Your task to perform on an android device: Open Google Maps Image 0: 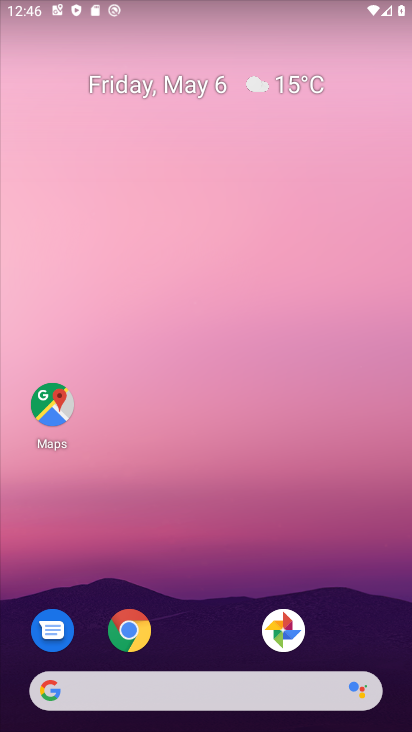
Step 0: drag from (193, 637) to (158, 33)
Your task to perform on an android device: Open Google Maps Image 1: 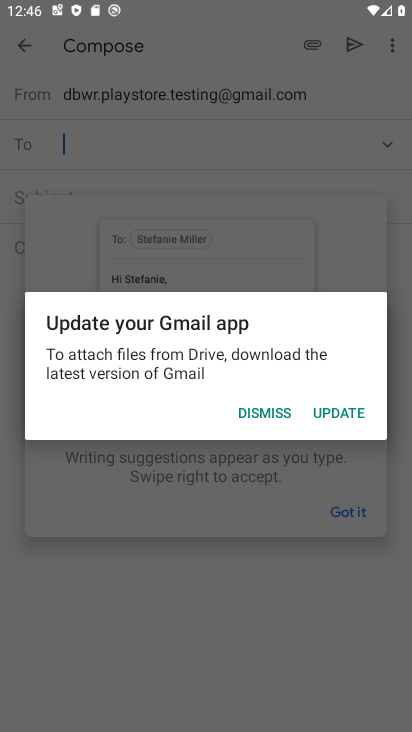
Step 1: press home button
Your task to perform on an android device: Open Google Maps Image 2: 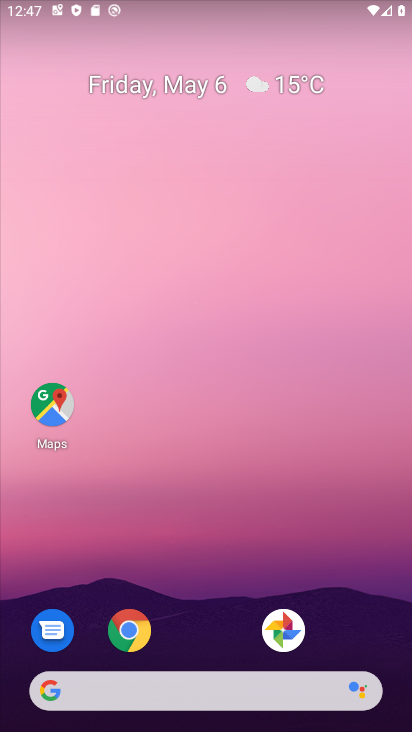
Step 2: drag from (296, 543) to (406, 122)
Your task to perform on an android device: Open Google Maps Image 3: 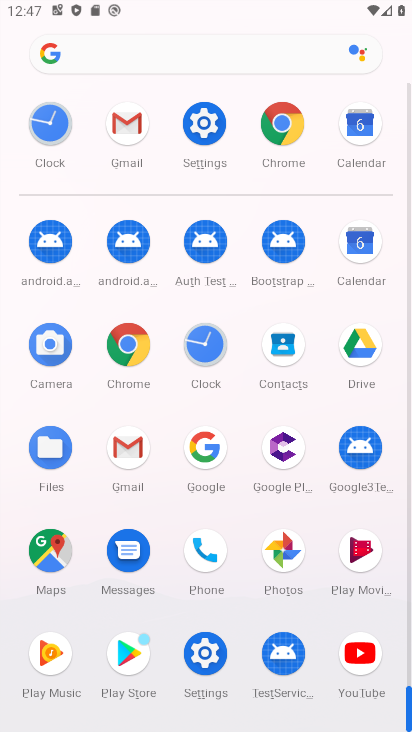
Step 3: click (57, 552)
Your task to perform on an android device: Open Google Maps Image 4: 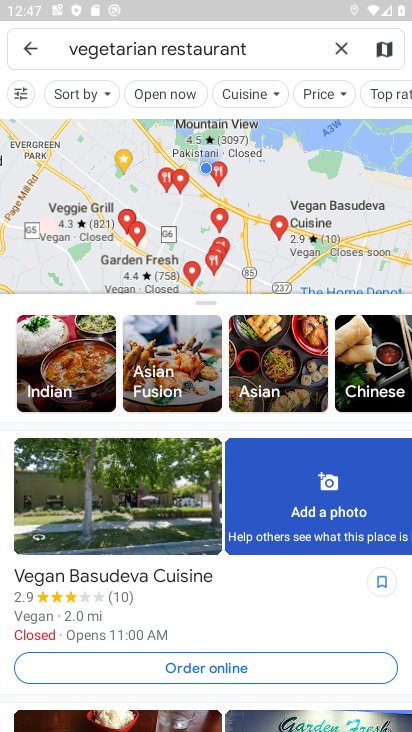
Step 4: task complete